Your task to perform on an android device: Search for seafood restaurants on Google Maps Image 0: 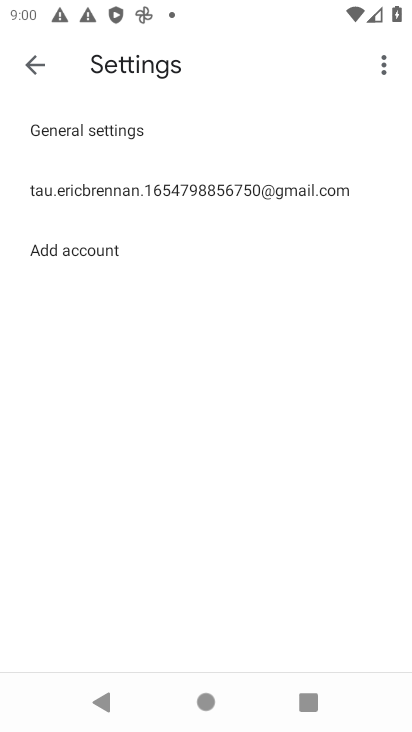
Step 0: press home button
Your task to perform on an android device: Search for seafood restaurants on Google Maps Image 1: 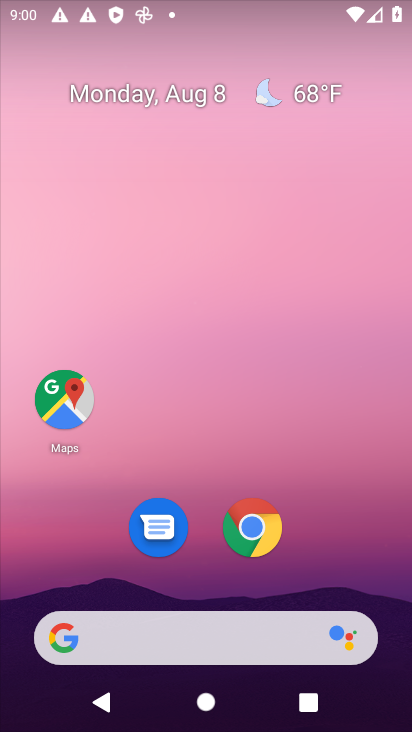
Step 1: click (58, 400)
Your task to perform on an android device: Search for seafood restaurants on Google Maps Image 2: 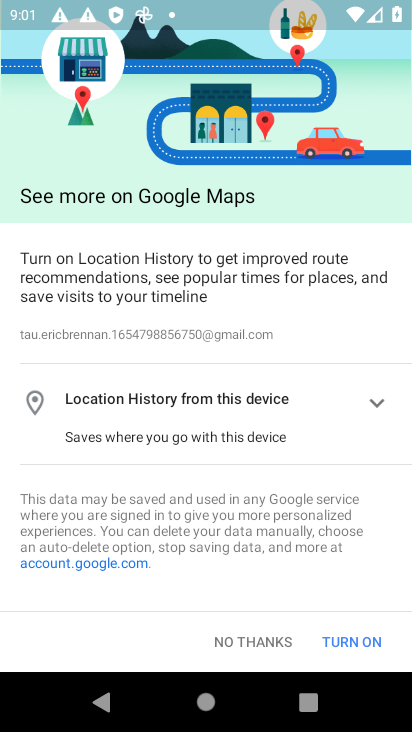
Step 2: click (356, 633)
Your task to perform on an android device: Search for seafood restaurants on Google Maps Image 3: 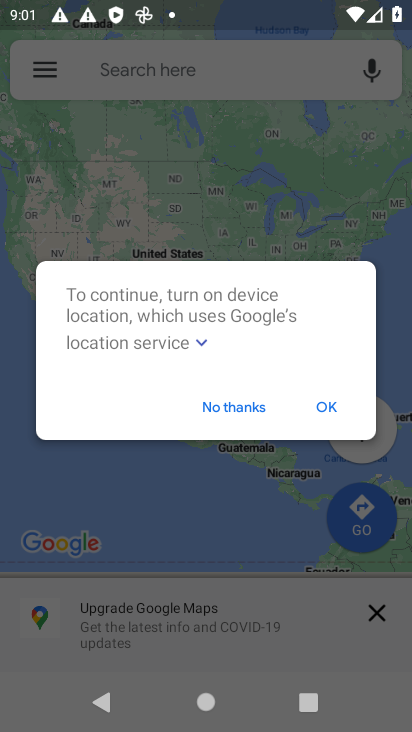
Step 3: click (325, 409)
Your task to perform on an android device: Search for seafood restaurants on Google Maps Image 4: 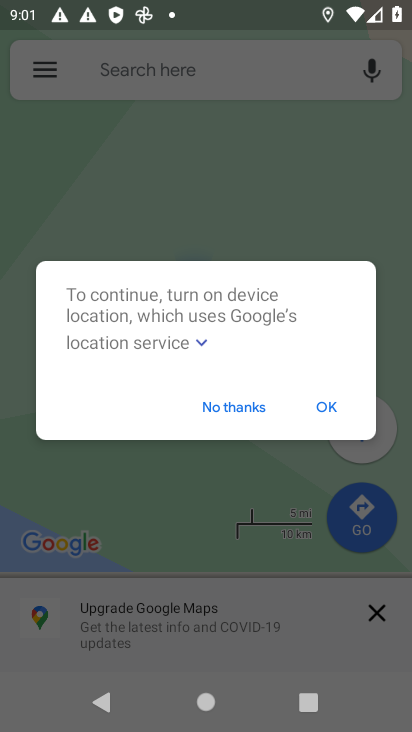
Step 4: click (316, 402)
Your task to perform on an android device: Search for seafood restaurants on Google Maps Image 5: 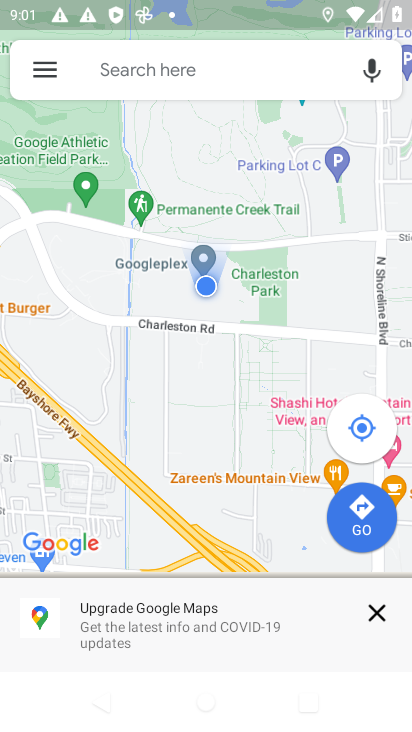
Step 5: click (118, 65)
Your task to perform on an android device: Search for seafood restaurants on Google Maps Image 6: 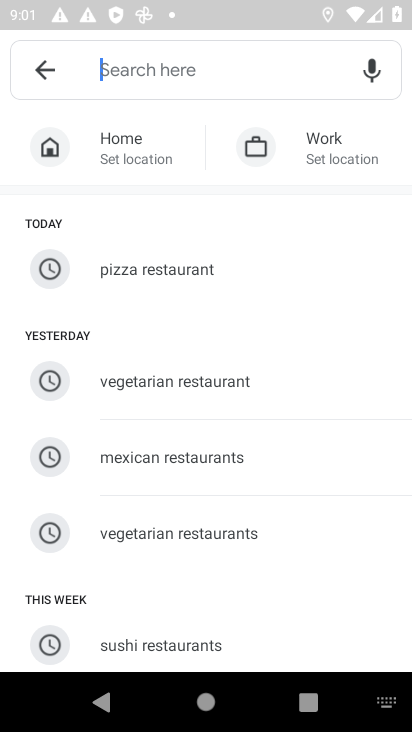
Step 6: type "seafood restaurants"
Your task to perform on an android device: Search for seafood restaurants on Google Maps Image 7: 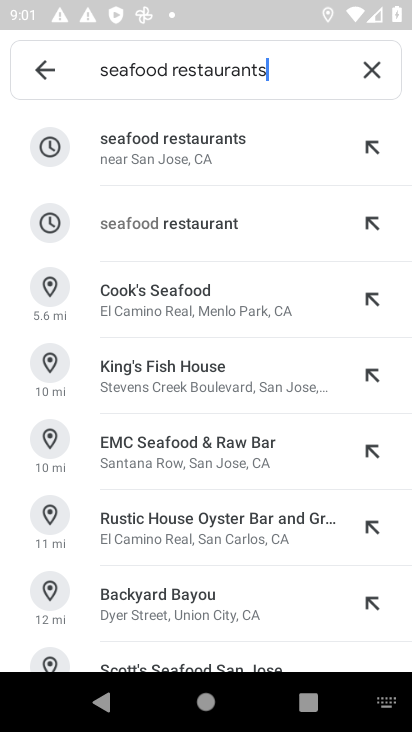
Step 7: click (161, 129)
Your task to perform on an android device: Search for seafood restaurants on Google Maps Image 8: 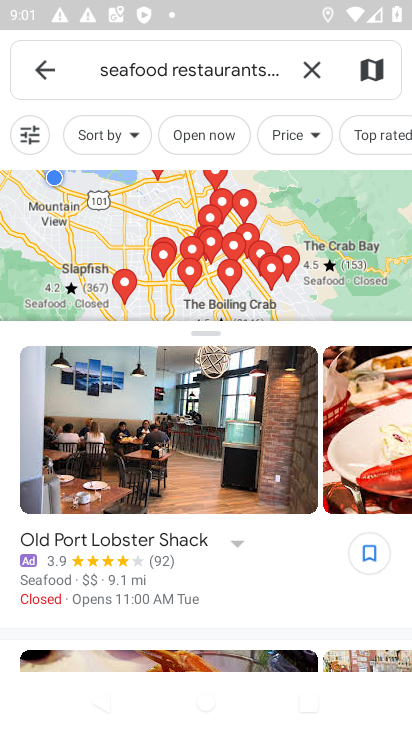
Step 8: task complete